Your task to perform on an android device: open chrome and create a bookmark for the current page Image 0: 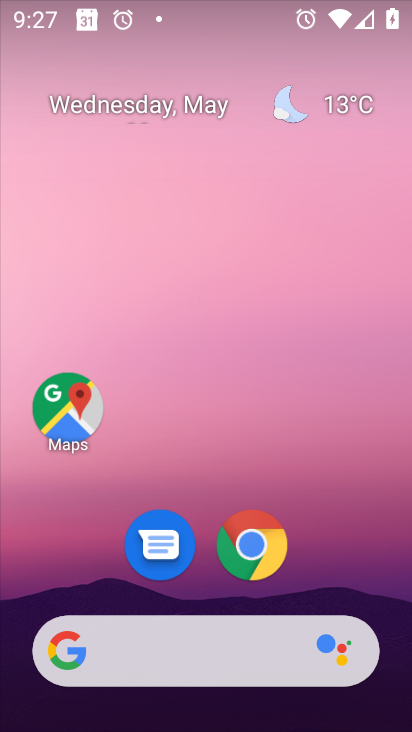
Step 0: drag from (333, 505) to (240, 4)
Your task to perform on an android device: open chrome and create a bookmark for the current page Image 1: 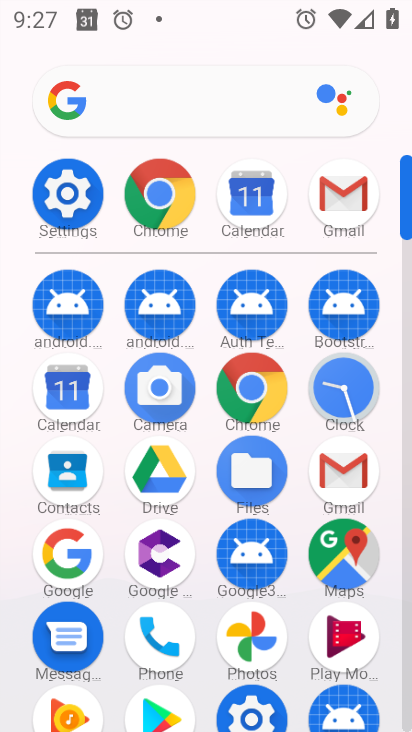
Step 1: drag from (13, 554) to (11, 247)
Your task to perform on an android device: open chrome and create a bookmark for the current page Image 2: 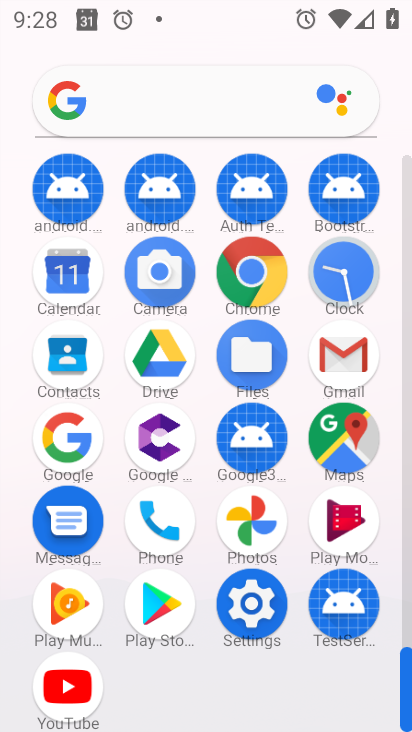
Step 2: click (247, 269)
Your task to perform on an android device: open chrome and create a bookmark for the current page Image 3: 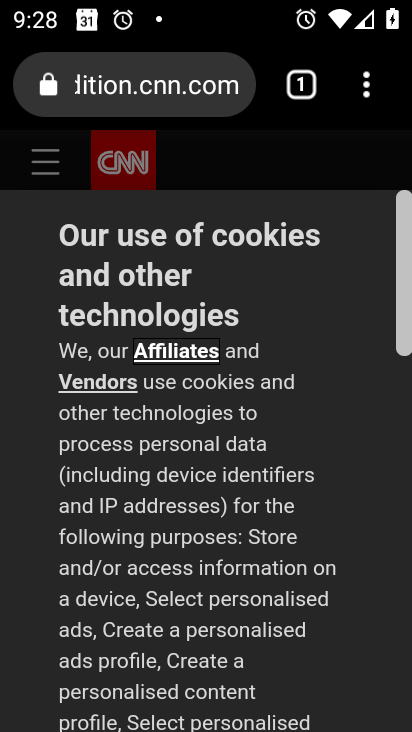
Step 3: drag from (365, 101) to (7, 92)
Your task to perform on an android device: open chrome and create a bookmark for the current page Image 4: 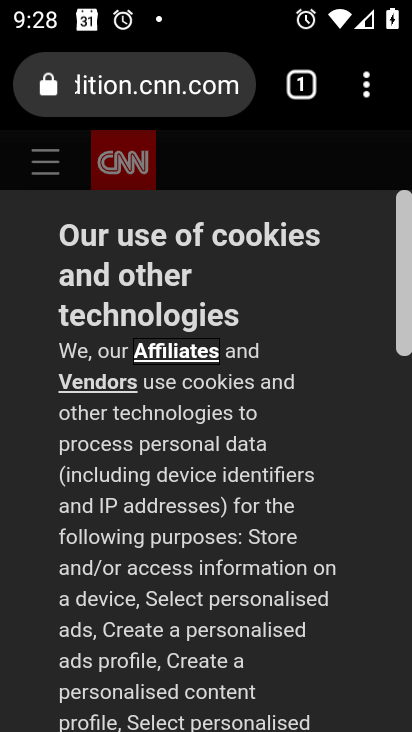
Step 4: click (11, 38)
Your task to perform on an android device: open chrome and create a bookmark for the current page Image 5: 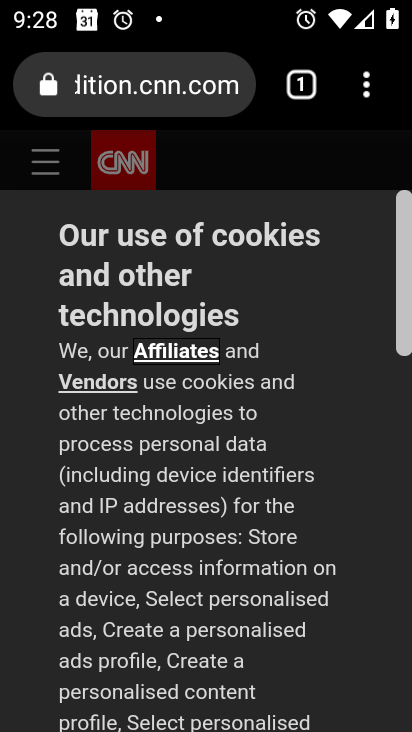
Step 5: task complete